Your task to perform on an android device: toggle javascript in the chrome app Image 0: 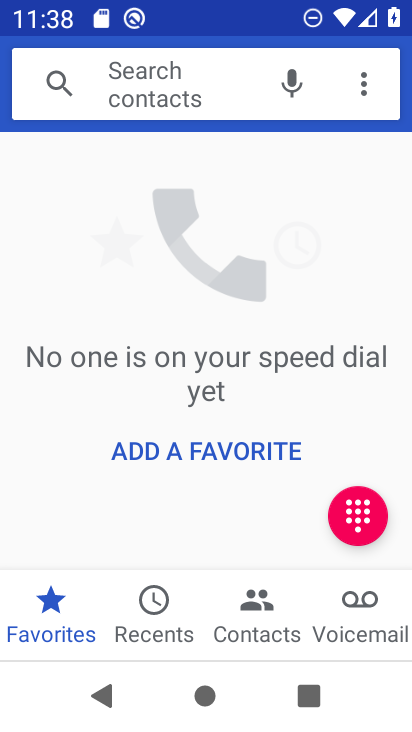
Step 0: press home button
Your task to perform on an android device: toggle javascript in the chrome app Image 1: 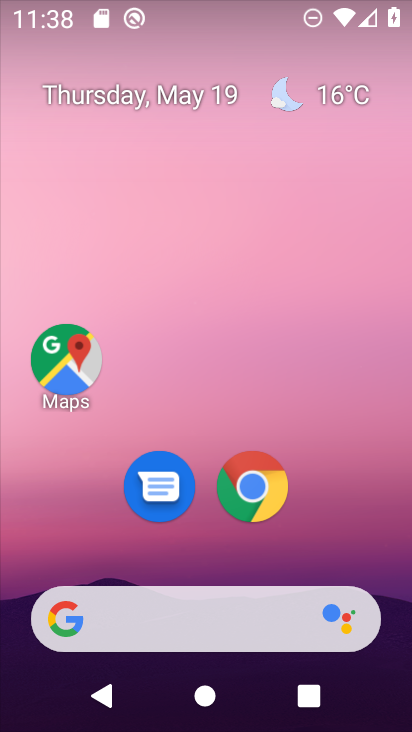
Step 1: click (268, 503)
Your task to perform on an android device: toggle javascript in the chrome app Image 2: 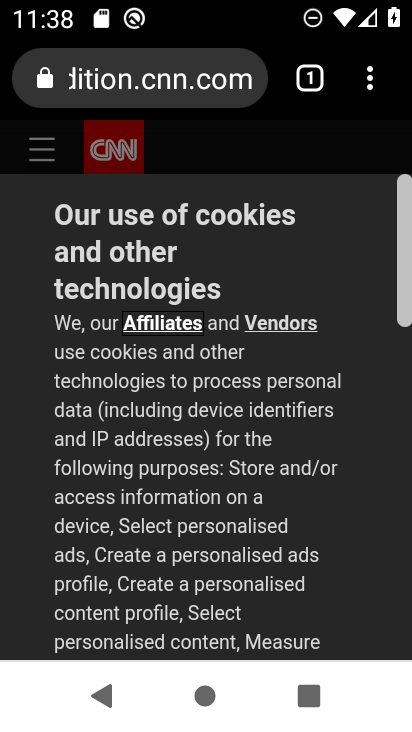
Step 2: click (377, 93)
Your task to perform on an android device: toggle javascript in the chrome app Image 3: 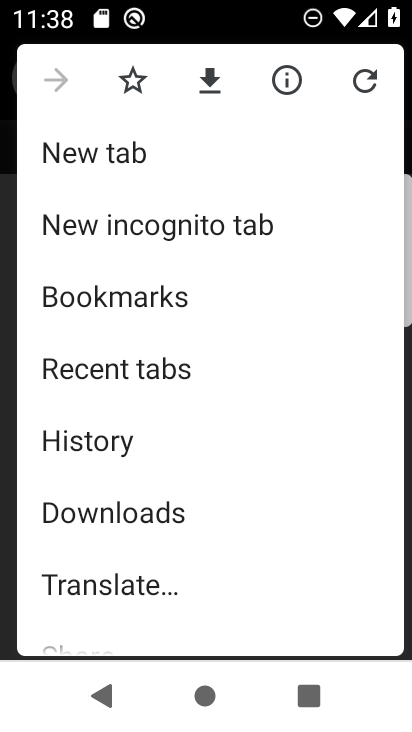
Step 3: click (226, 449)
Your task to perform on an android device: toggle javascript in the chrome app Image 4: 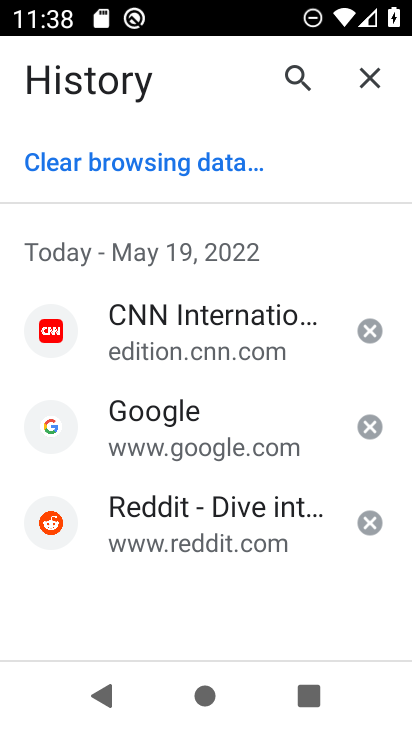
Step 4: click (368, 86)
Your task to perform on an android device: toggle javascript in the chrome app Image 5: 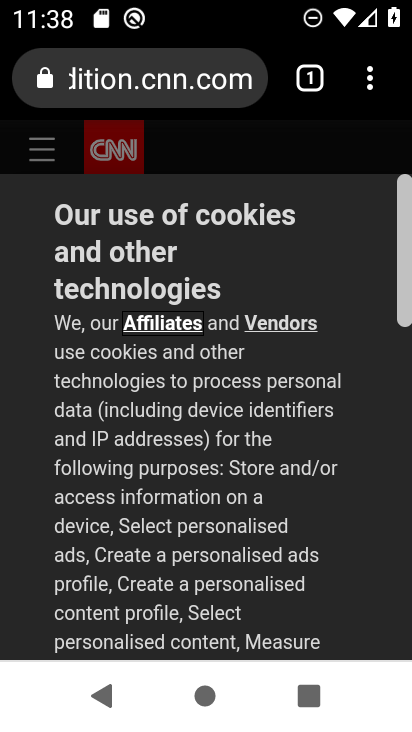
Step 5: click (368, 86)
Your task to perform on an android device: toggle javascript in the chrome app Image 6: 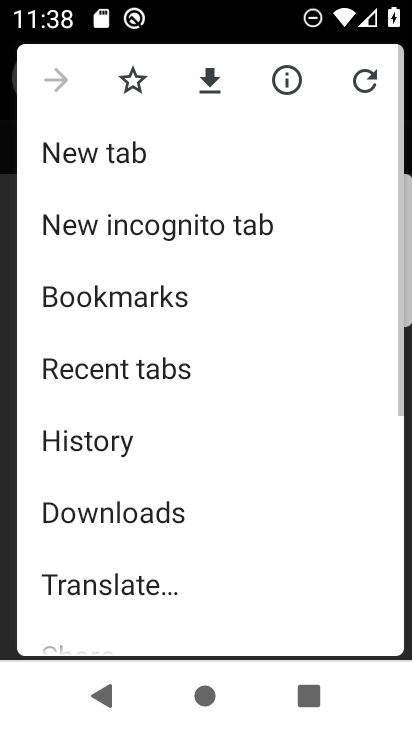
Step 6: drag from (241, 545) to (255, 238)
Your task to perform on an android device: toggle javascript in the chrome app Image 7: 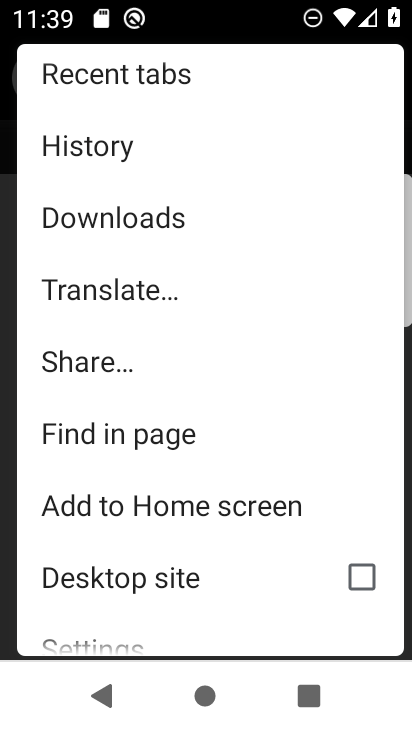
Step 7: click (182, 627)
Your task to perform on an android device: toggle javascript in the chrome app Image 8: 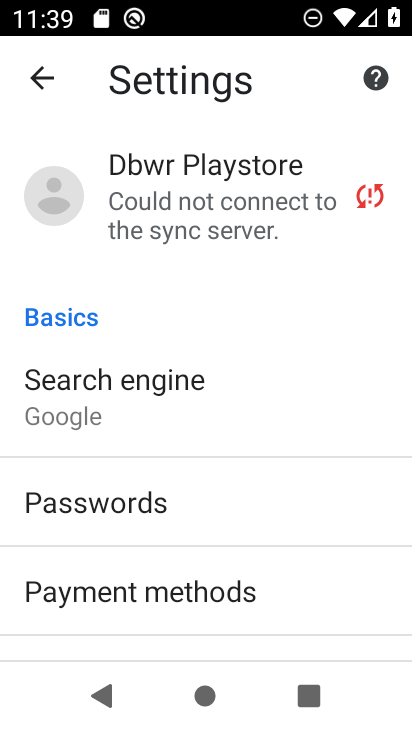
Step 8: drag from (192, 600) to (201, 367)
Your task to perform on an android device: toggle javascript in the chrome app Image 9: 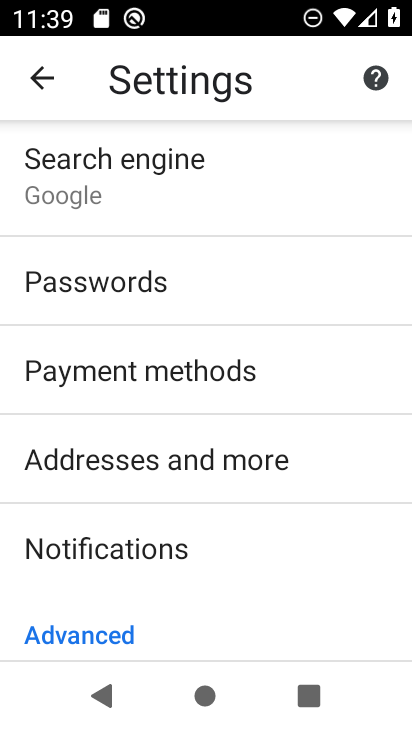
Step 9: drag from (166, 538) to (211, 269)
Your task to perform on an android device: toggle javascript in the chrome app Image 10: 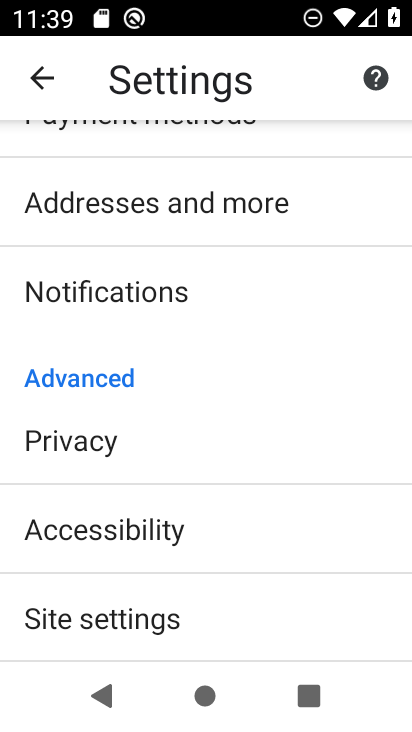
Step 10: click (171, 584)
Your task to perform on an android device: toggle javascript in the chrome app Image 11: 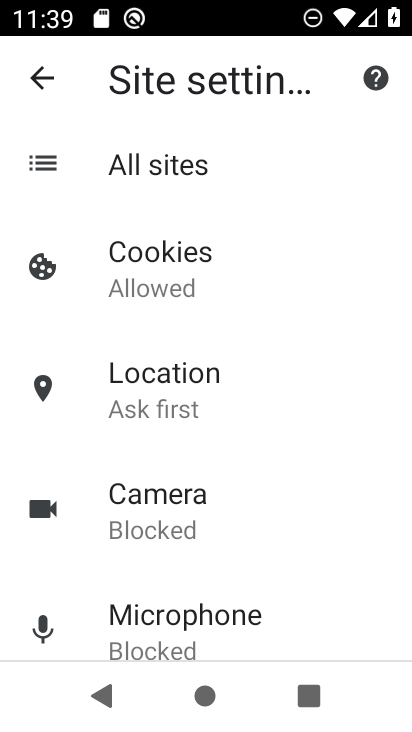
Step 11: drag from (232, 446) to (244, 250)
Your task to perform on an android device: toggle javascript in the chrome app Image 12: 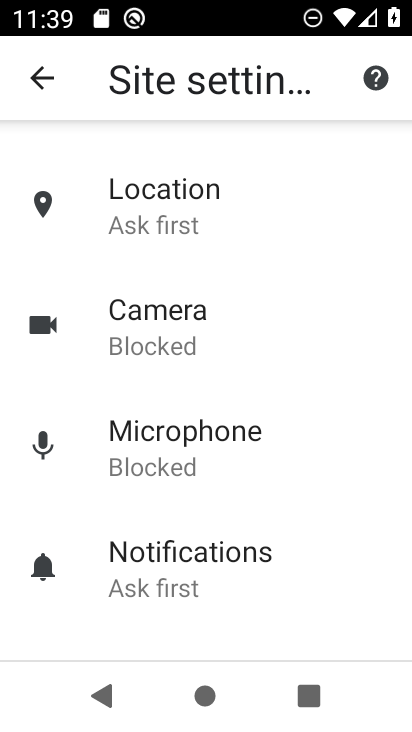
Step 12: drag from (235, 618) to (253, 368)
Your task to perform on an android device: toggle javascript in the chrome app Image 13: 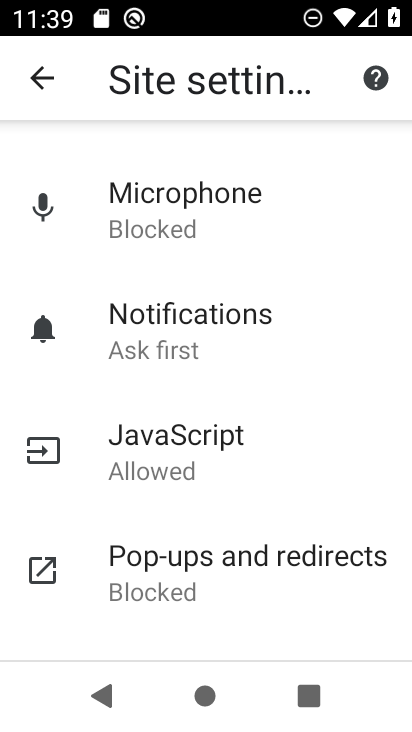
Step 13: click (255, 474)
Your task to perform on an android device: toggle javascript in the chrome app Image 14: 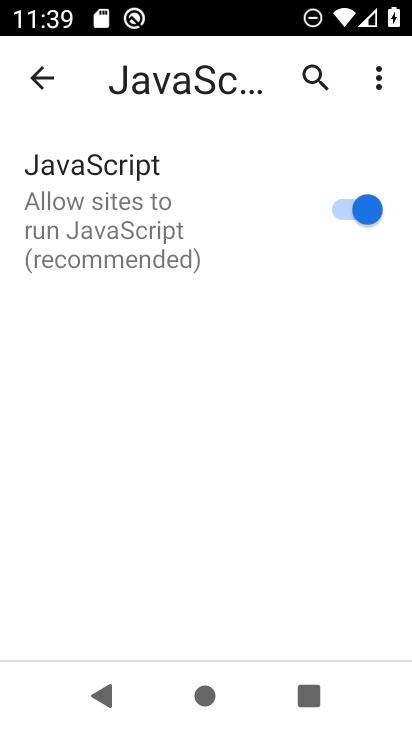
Step 14: click (343, 210)
Your task to perform on an android device: toggle javascript in the chrome app Image 15: 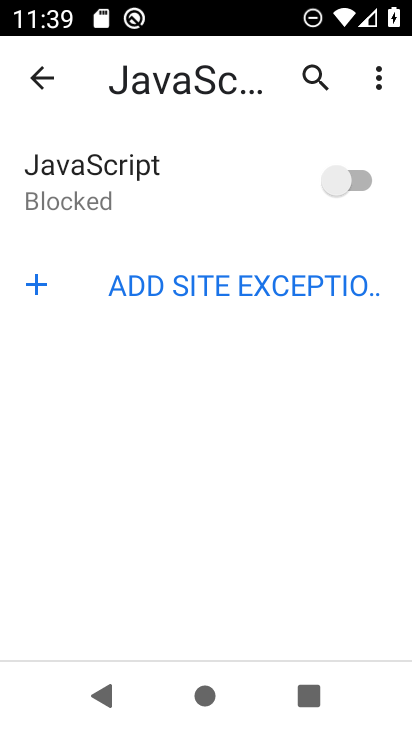
Step 15: task complete